Your task to perform on an android device: turn on javascript in the chrome app Image 0: 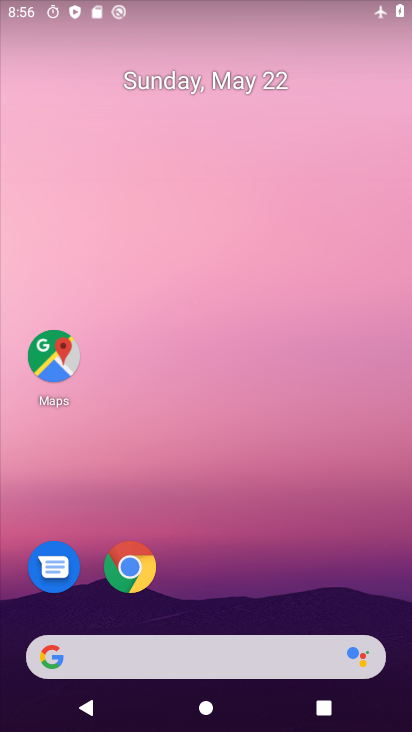
Step 0: drag from (192, 619) to (259, 4)
Your task to perform on an android device: turn on javascript in the chrome app Image 1: 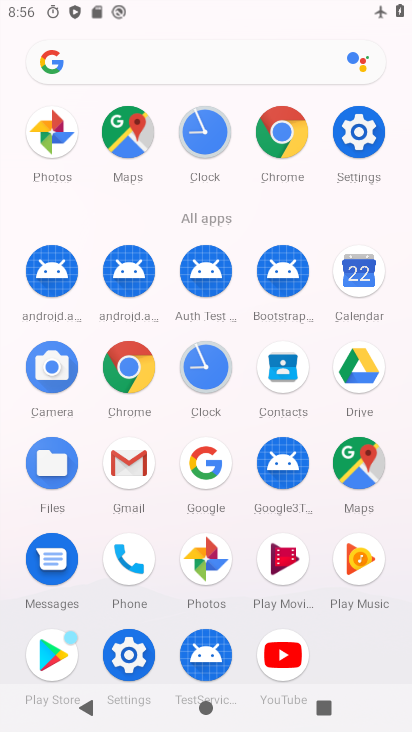
Step 1: click (278, 143)
Your task to perform on an android device: turn on javascript in the chrome app Image 2: 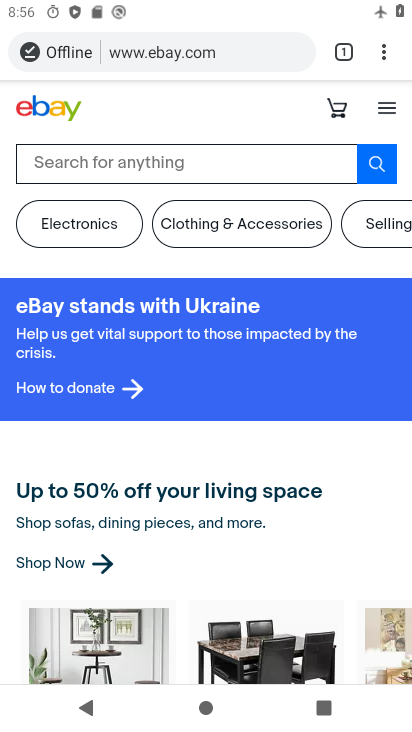
Step 2: click (381, 41)
Your task to perform on an android device: turn on javascript in the chrome app Image 3: 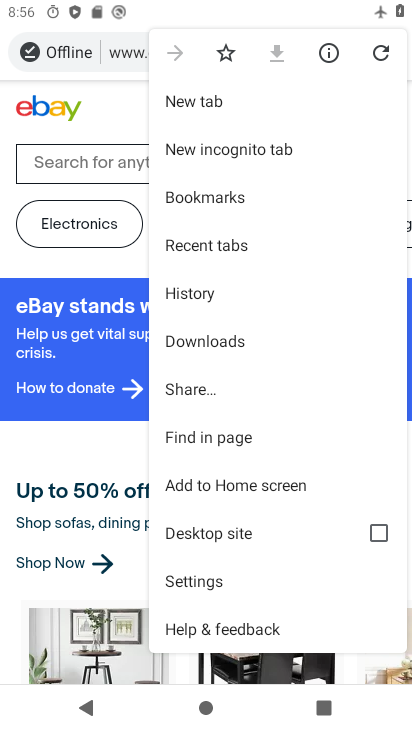
Step 3: click (204, 584)
Your task to perform on an android device: turn on javascript in the chrome app Image 4: 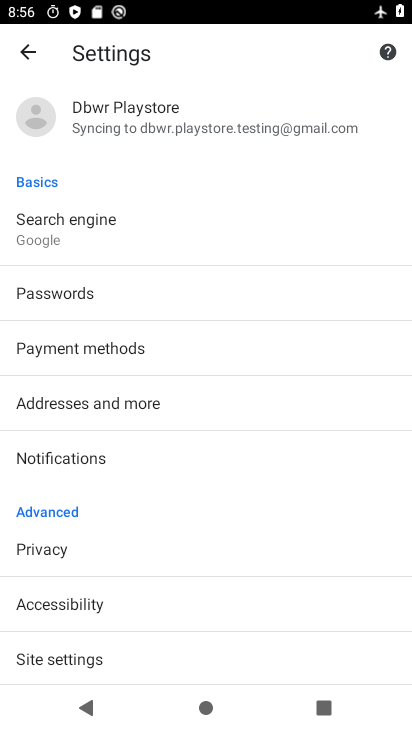
Step 4: click (83, 660)
Your task to perform on an android device: turn on javascript in the chrome app Image 5: 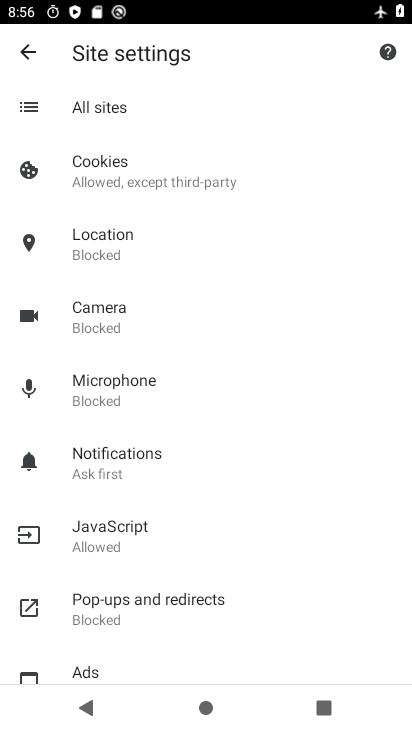
Step 5: click (112, 542)
Your task to perform on an android device: turn on javascript in the chrome app Image 6: 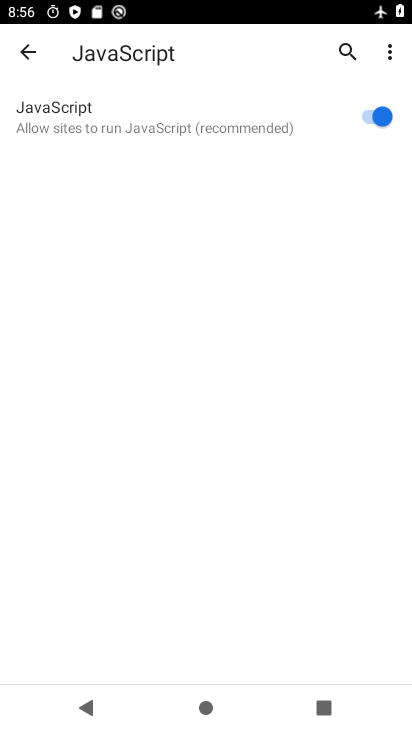
Step 6: task complete